Your task to perform on an android device: toggle airplane mode Image 0: 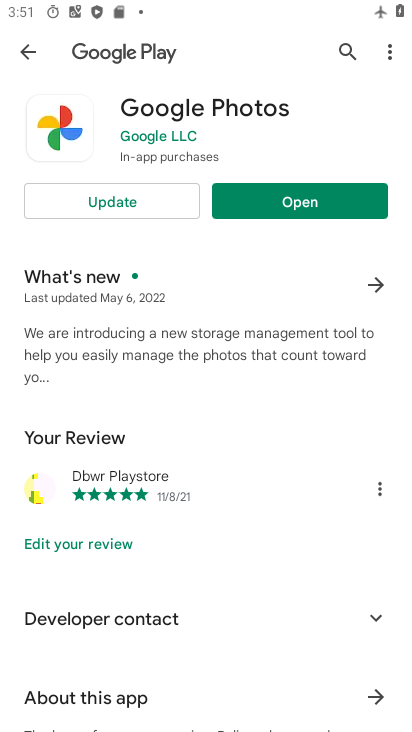
Step 0: press home button
Your task to perform on an android device: toggle airplane mode Image 1: 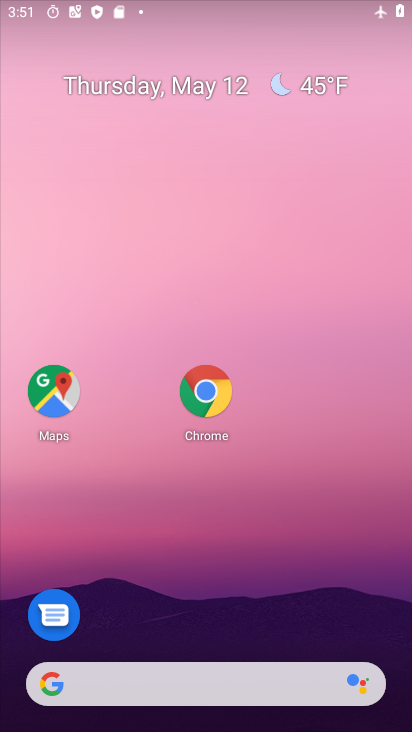
Step 1: drag from (206, 613) to (228, 98)
Your task to perform on an android device: toggle airplane mode Image 2: 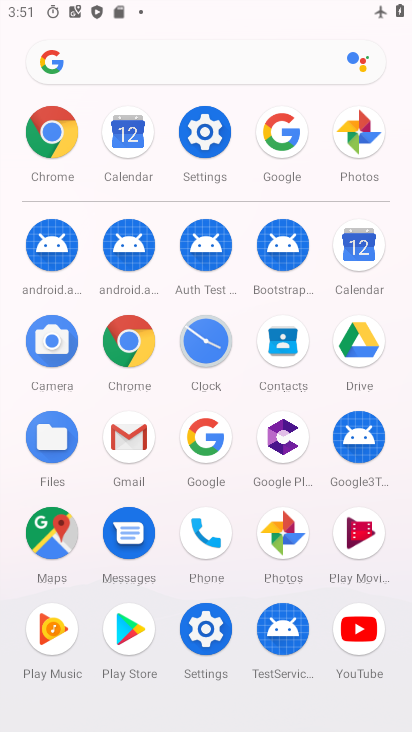
Step 2: click (207, 141)
Your task to perform on an android device: toggle airplane mode Image 3: 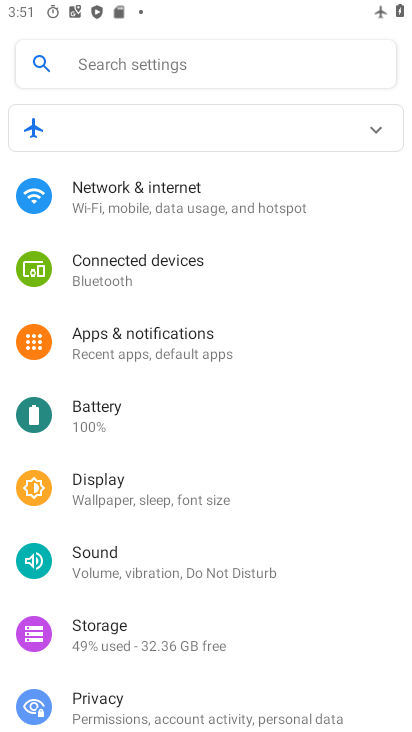
Step 3: click (156, 196)
Your task to perform on an android device: toggle airplane mode Image 4: 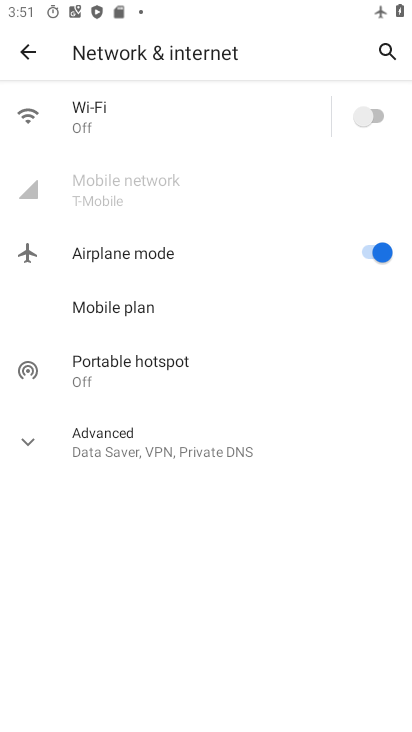
Step 4: click (385, 248)
Your task to perform on an android device: toggle airplane mode Image 5: 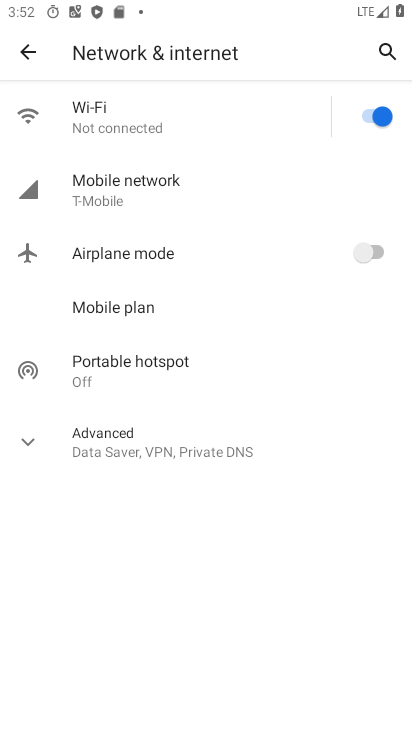
Step 5: task complete